Your task to perform on an android device: Open accessibility settings Image 0: 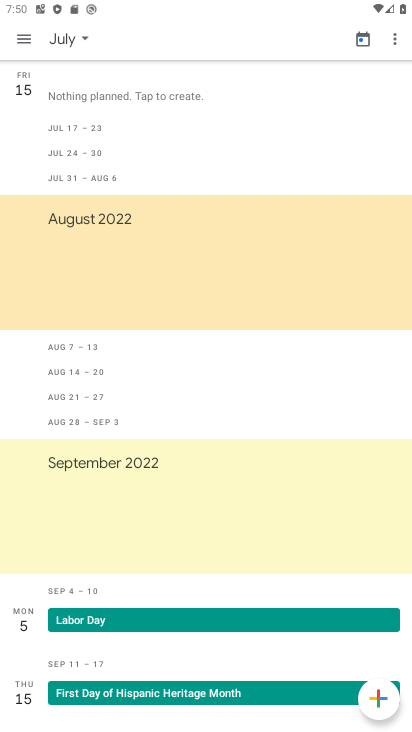
Step 0: press home button
Your task to perform on an android device: Open accessibility settings Image 1: 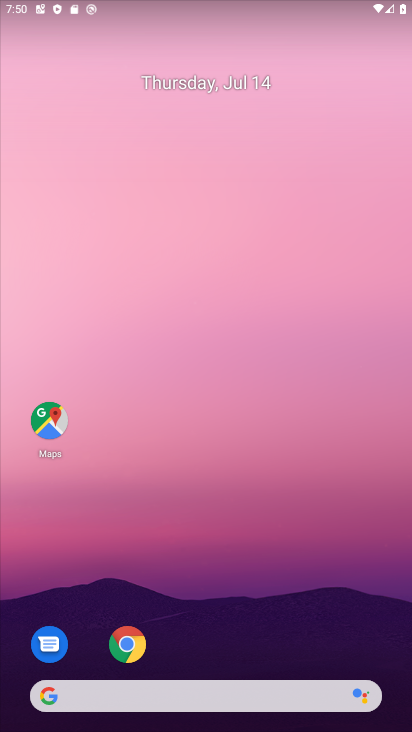
Step 1: drag from (211, 697) to (375, 185)
Your task to perform on an android device: Open accessibility settings Image 2: 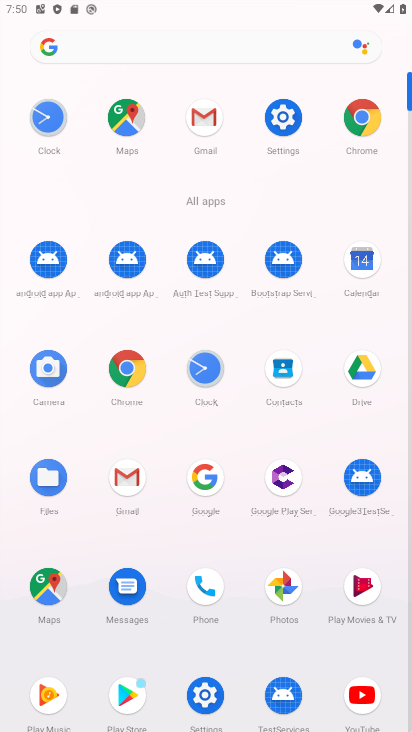
Step 2: click (298, 104)
Your task to perform on an android device: Open accessibility settings Image 3: 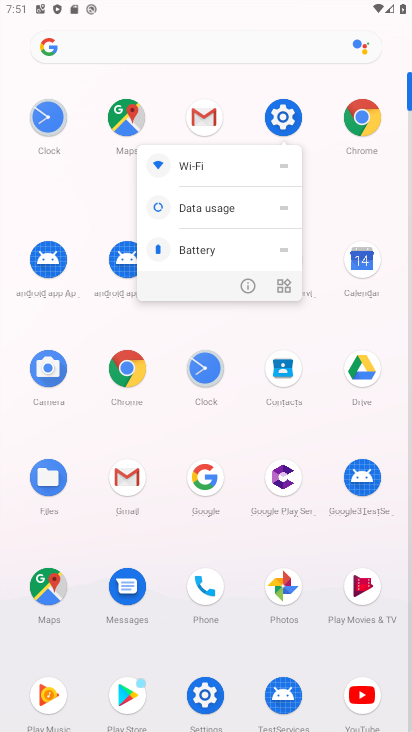
Step 3: click (288, 116)
Your task to perform on an android device: Open accessibility settings Image 4: 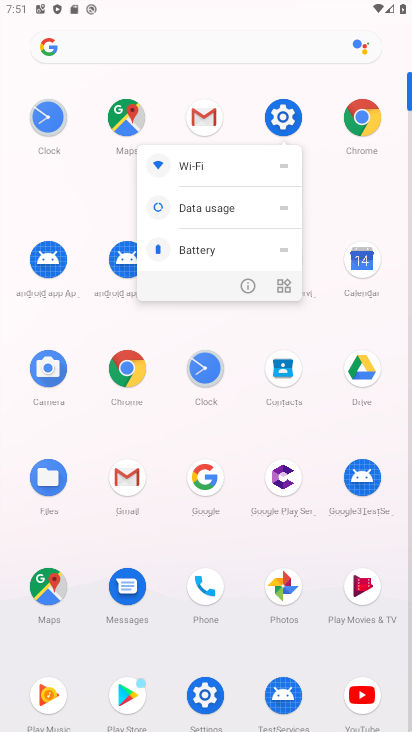
Step 4: click (288, 119)
Your task to perform on an android device: Open accessibility settings Image 5: 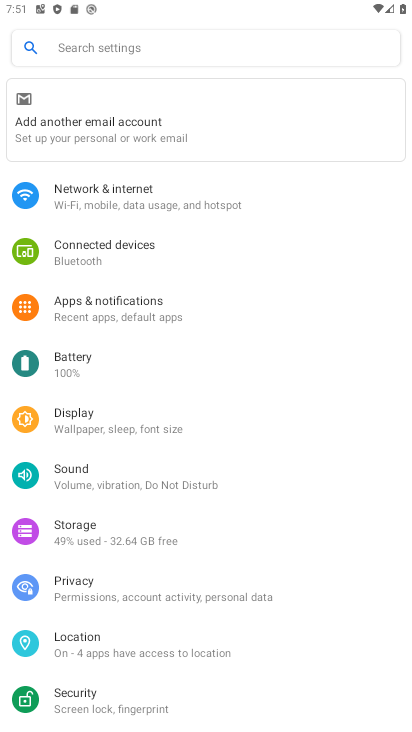
Step 5: drag from (228, 651) to (318, 164)
Your task to perform on an android device: Open accessibility settings Image 6: 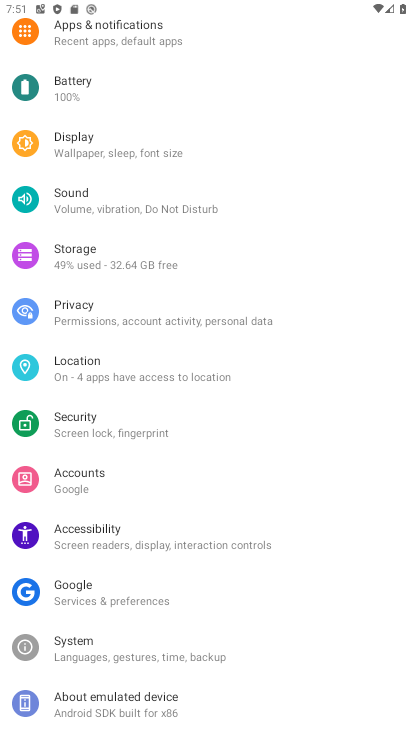
Step 6: click (136, 546)
Your task to perform on an android device: Open accessibility settings Image 7: 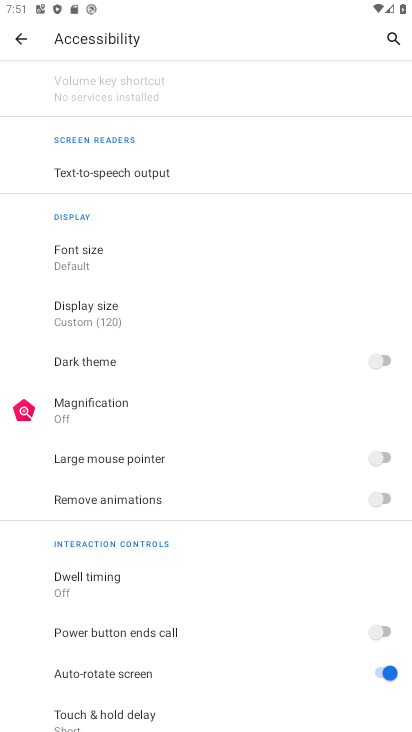
Step 7: task complete